Your task to perform on an android device: open wifi settings Image 0: 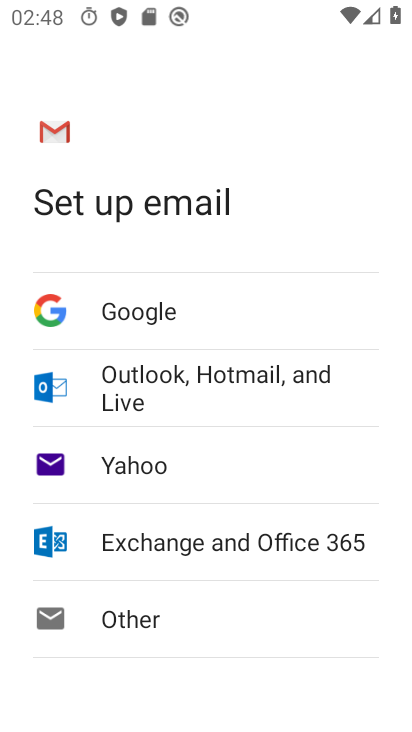
Step 0: press home button
Your task to perform on an android device: open wifi settings Image 1: 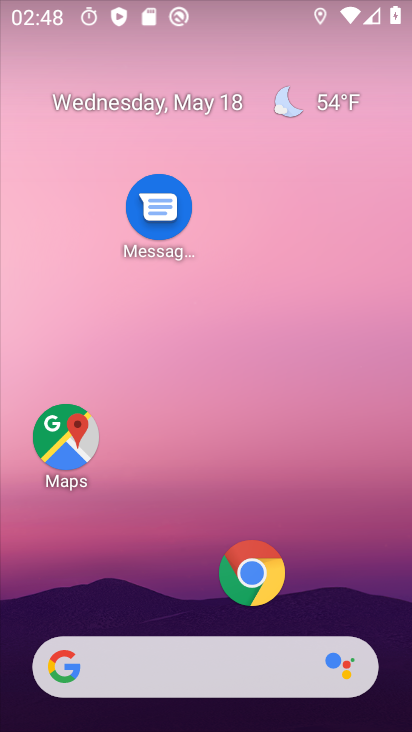
Step 1: drag from (193, 608) to (235, 271)
Your task to perform on an android device: open wifi settings Image 2: 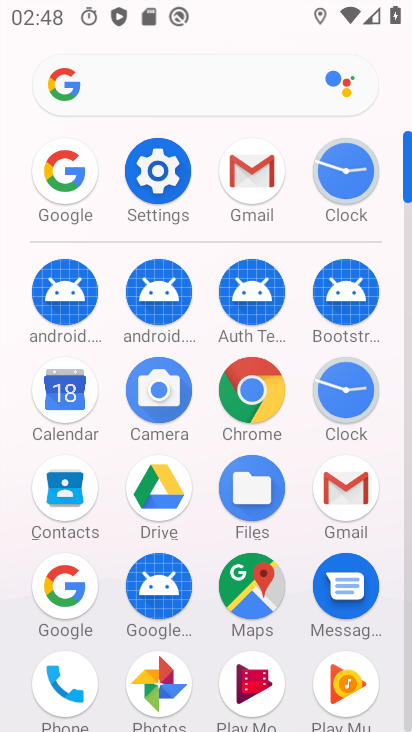
Step 2: click (168, 199)
Your task to perform on an android device: open wifi settings Image 3: 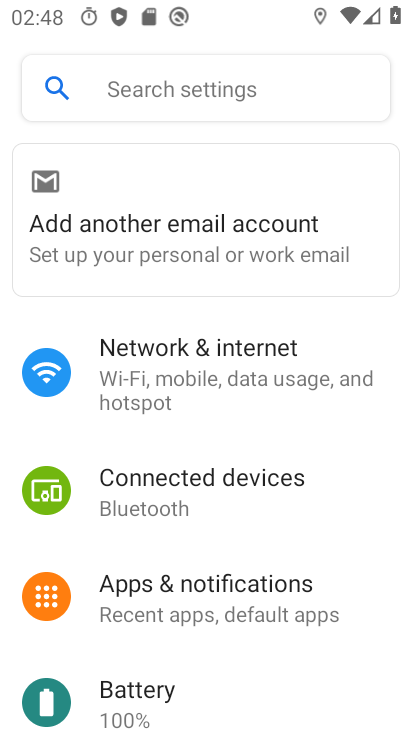
Step 3: click (199, 359)
Your task to perform on an android device: open wifi settings Image 4: 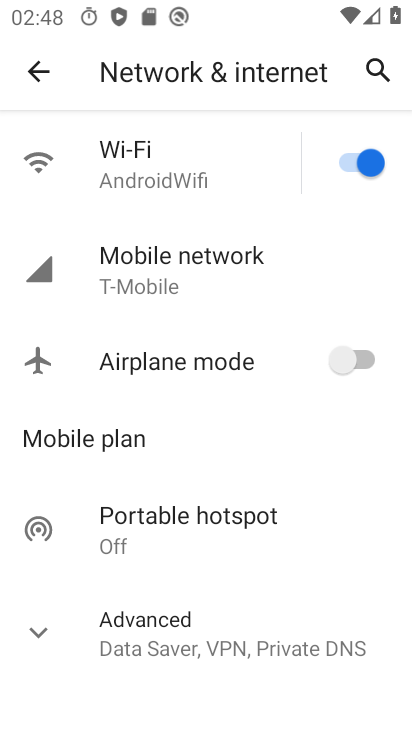
Step 4: click (161, 154)
Your task to perform on an android device: open wifi settings Image 5: 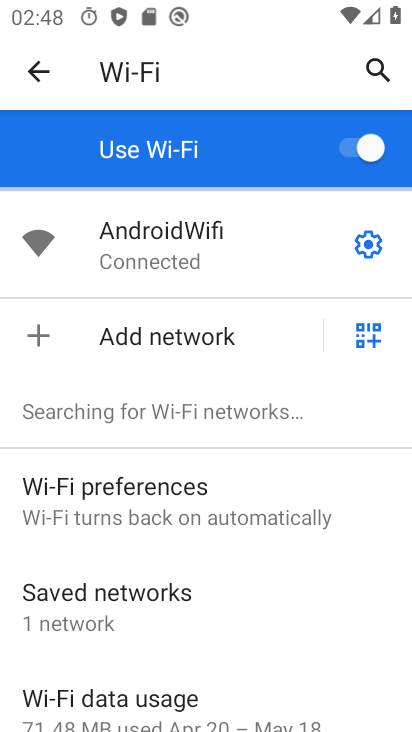
Step 5: task complete